Your task to perform on an android device: open the mobile data screen to see how much data has been used Image 0: 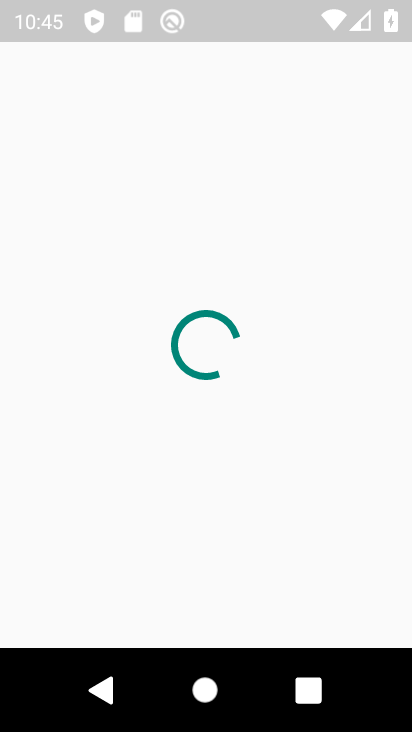
Step 0: drag from (386, 531) to (406, 501)
Your task to perform on an android device: open the mobile data screen to see how much data has been used Image 1: 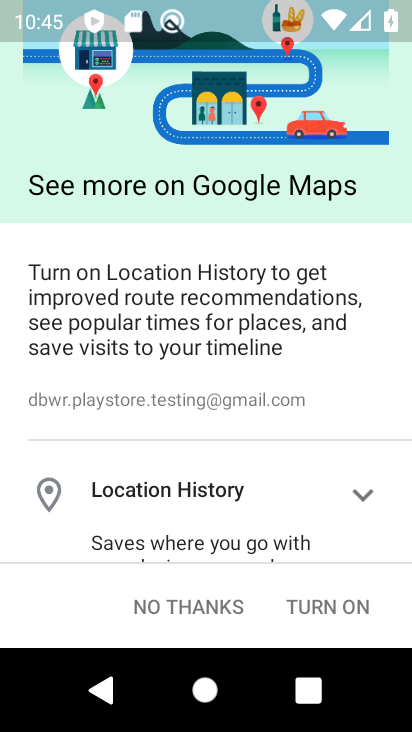
Step 1: press home button
Your task to perform on an android device: open the mobile data screen to see how much data has been used Image 2: 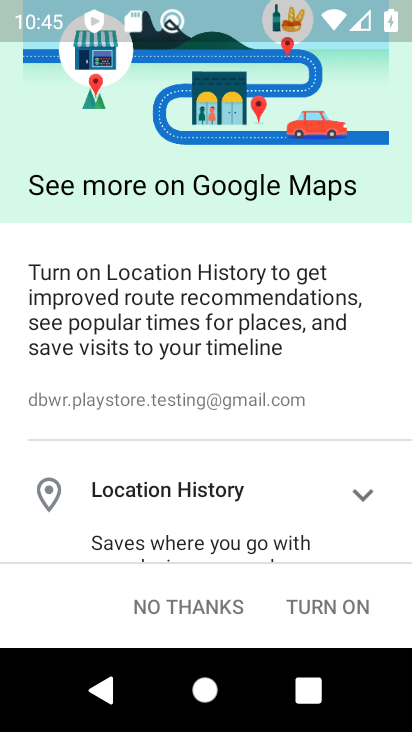
Step 2: click (406, 501)
Your task to perform on an android device: open the mobile data screen to see how much data has been used Image 3: 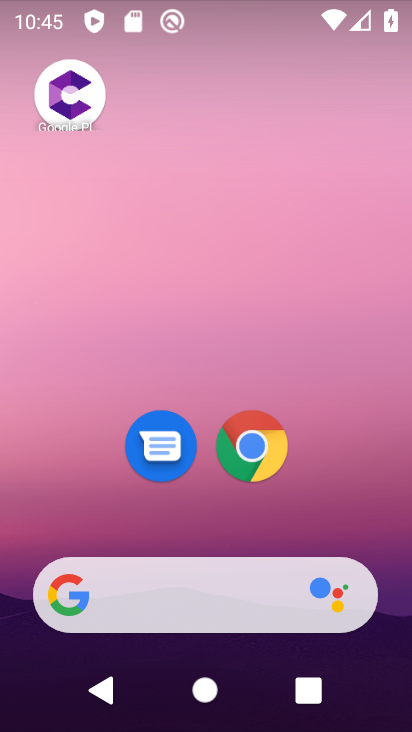
Step 3: drag from (382, 522) to (376, 170)
Your task to perform on an android device: open the mobile data screen to see how much data has been used Image 4: 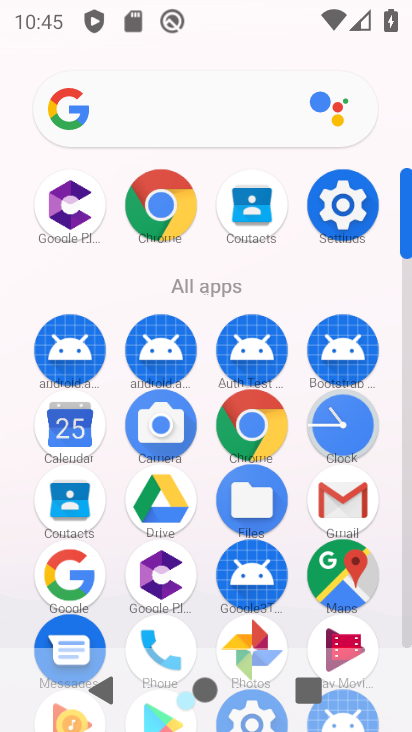
Step 4: click (348, 223)
Your task to perform on an android device: open the mobile data screen to see how much data has been used Image 5: 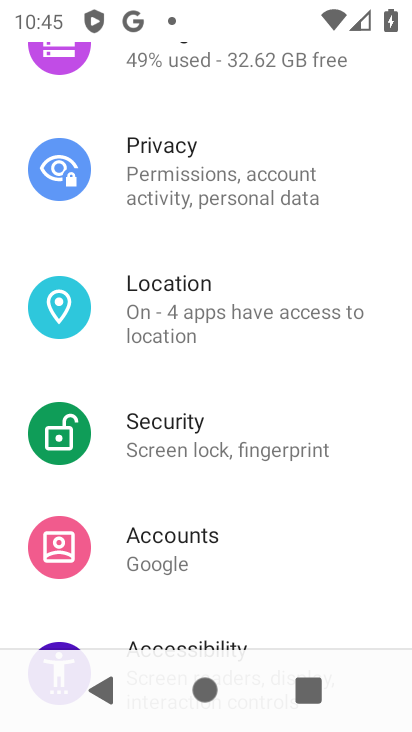
Step 5: drag from (348, 223) to (359, 333)
Your task to perform on an android device: open the mobile data screen to see how much data has been used Image 6: 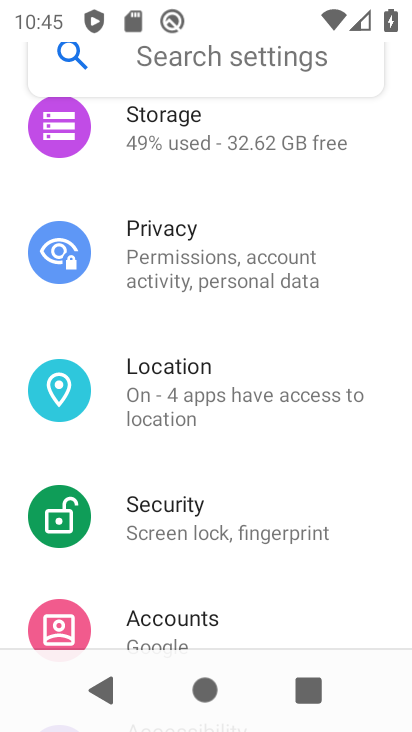
Step 6: drag from (359, 229) to (363, 318)
Your task to perform on an android device: open the mobile data screen to see how much data has been used Image 7: 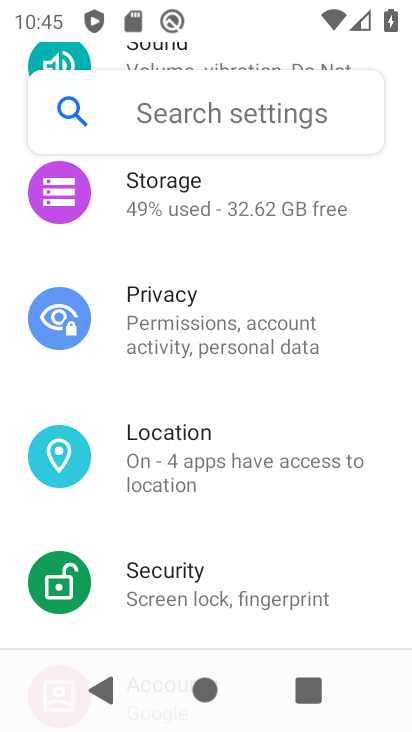
Step 7: drag from (387, 203) to (382, 318)
Your task to perform on an android device: open the mobile data screen to see how much data has been used Image 8: 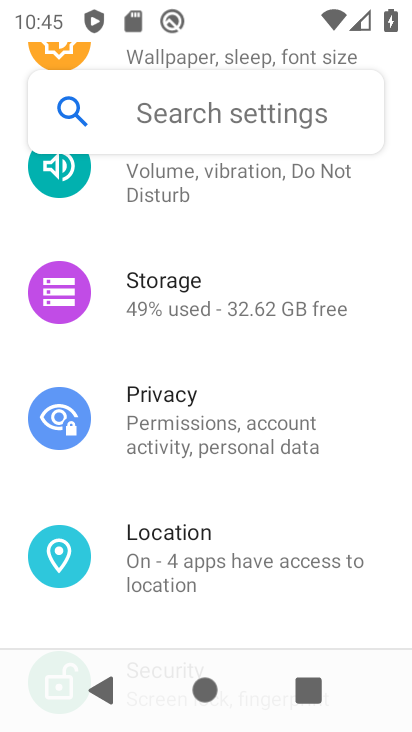
Step 8: drag from (374, 233) to (373, 313)
Your task to perform on an android device: open the mobile data screen to see how much data has been used Image 9: 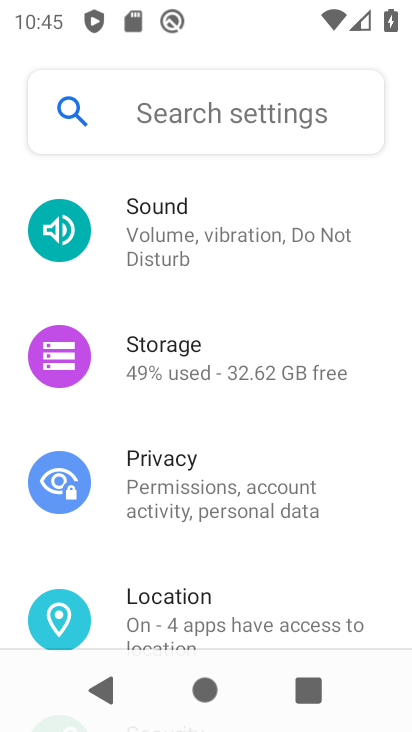
Step 9: drag from (371, 213) to (373, 322)
Your task to perform on an android device: open the mobile data screen to see how much data has been used Image 10: 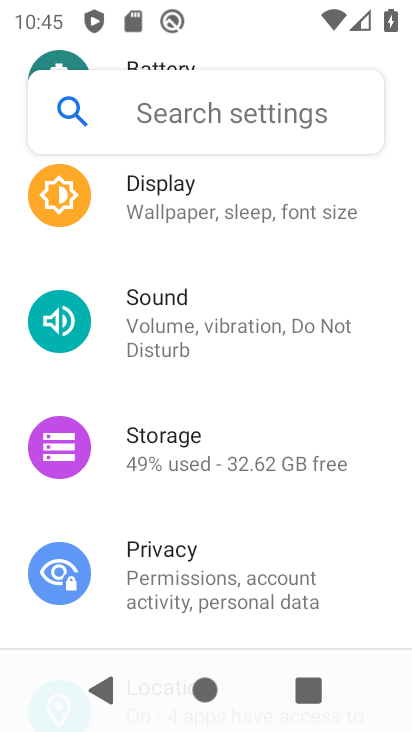
Step 10: drag from (377, 209) to (384, 308)
Your task to perform on an android device: open the mobile data screen to see how much data has been used Image 11: 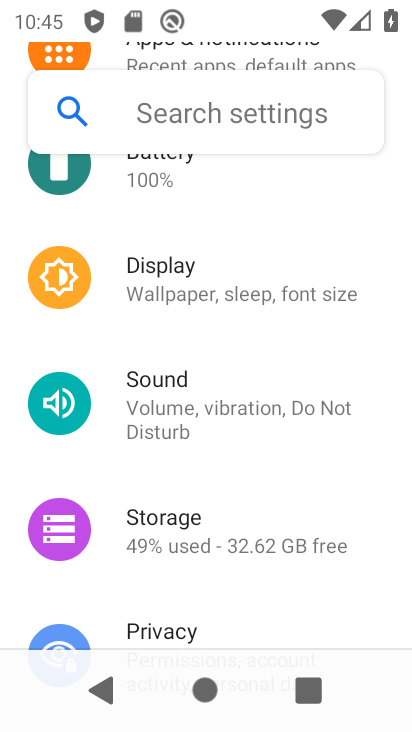
Step 11: drag from (372, 204) to (374, 298)
Your task to perform on an android device: open the mobile data screen to see how much data has been used Image 12: 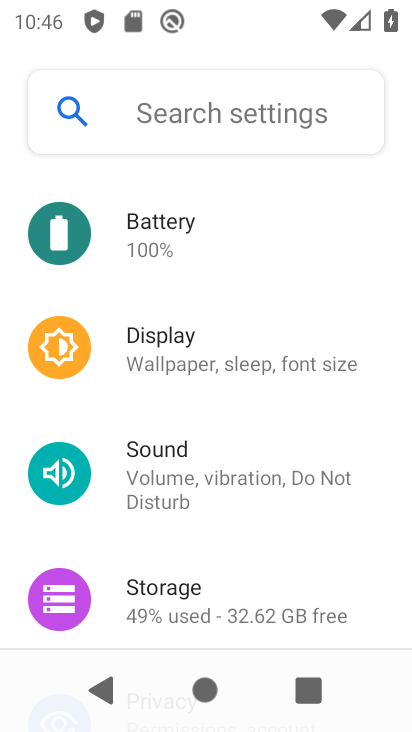
Step 12: drag from (369, 273) to (368, 378)
Your task to perform on an android device: open the mobile data screen to see how much data has been used Image 13: 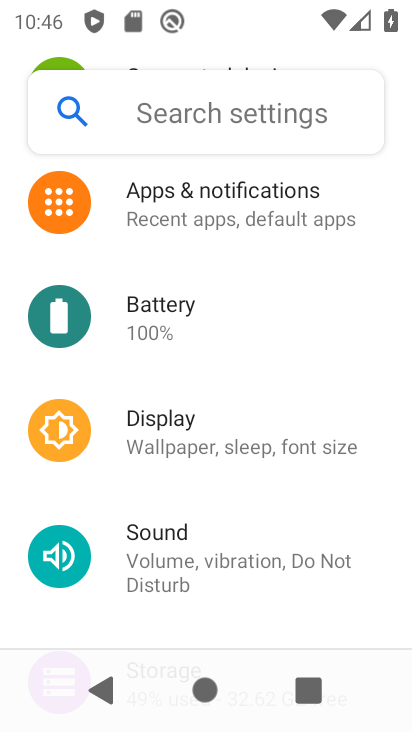
Step 13: drag from (356, 270) to (349, 374)
Your task to perform on an android device: open the mobile data screen to see how much data has been used Image 14: 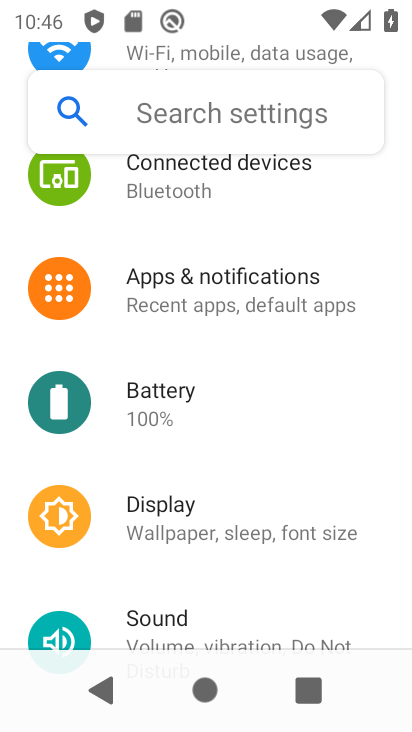
Step 14: drag from (361, 239) to (345, 363)
Your task to perform on an android device: open the mobile data screen to see how much data has been used Image 15: 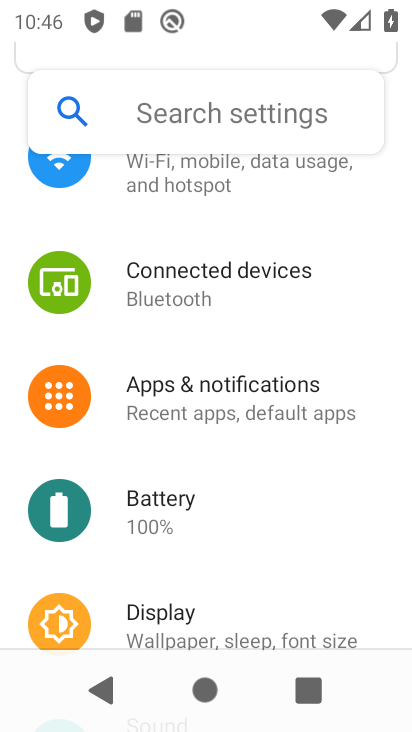
Step 15: drag from (356, 242) to (356, 350)
Your task to perform on an android device: open the mobile data screen to see how much data has been used Image 16: 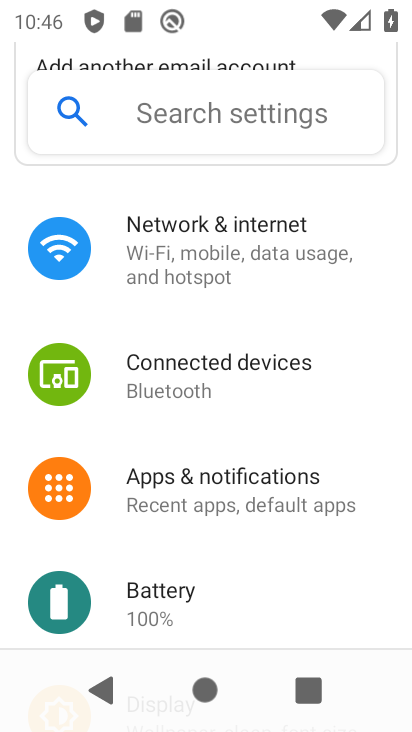
Step 16: drag from (367, 208) to (354, 354)
Your task to perform on an android device: open the mobile data screen to see how much data has been used Image 17: 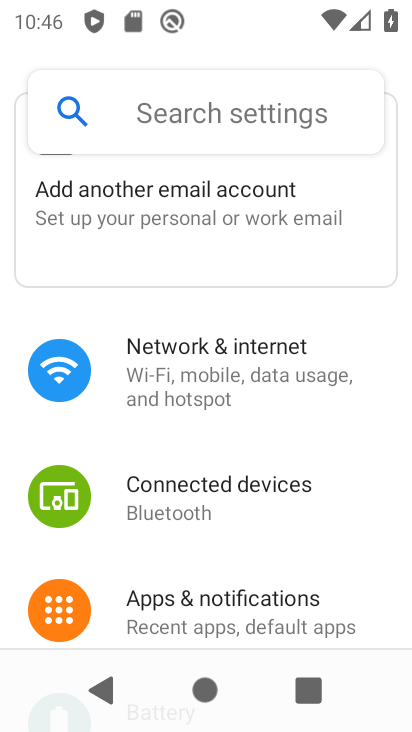
Step 17: click (283, 370)
Your task to perform on an android device: open the mobile data screen to see how much data has been used Image 18: 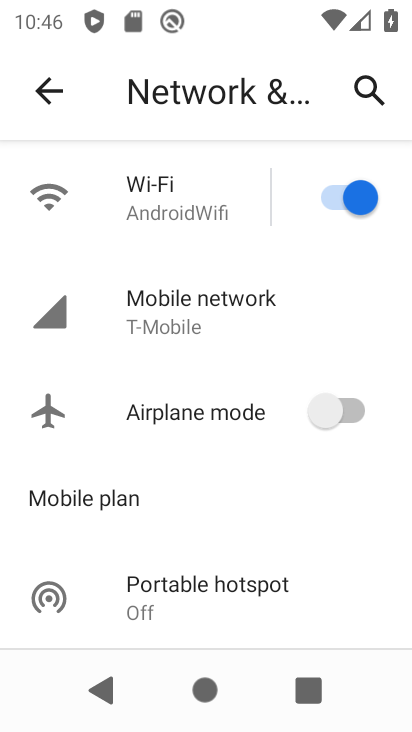
Step 18: click (218, 320)
Your task to perform on an android device: open the mobile data screen to see how much data has been used Image 19: 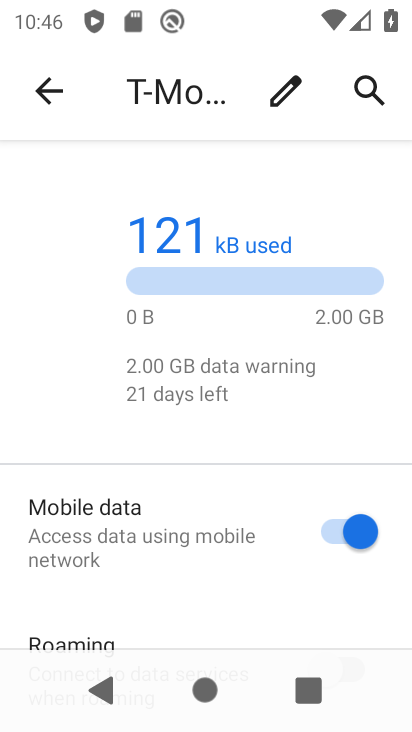
Step 19: drag from (223, 522) to (248, 387)
Your task to perform on an android device: open the mobile data screen to see how much data has been used Image 20: 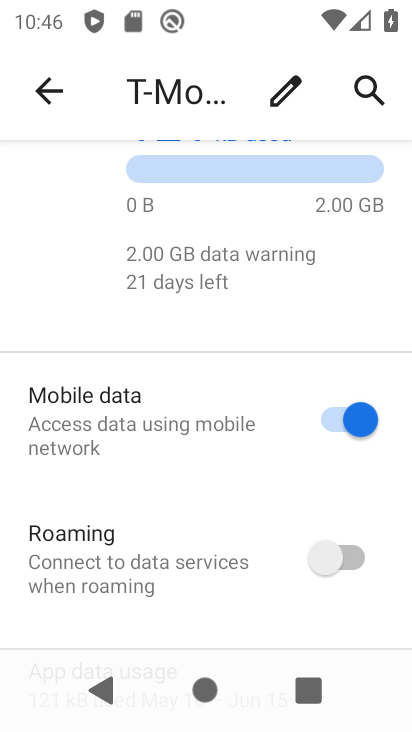
Step 20: drag from (251, 523) to (247, 339)
Your task to perform on an android device: open the mobile data screen to see how much data has been used Image 21: 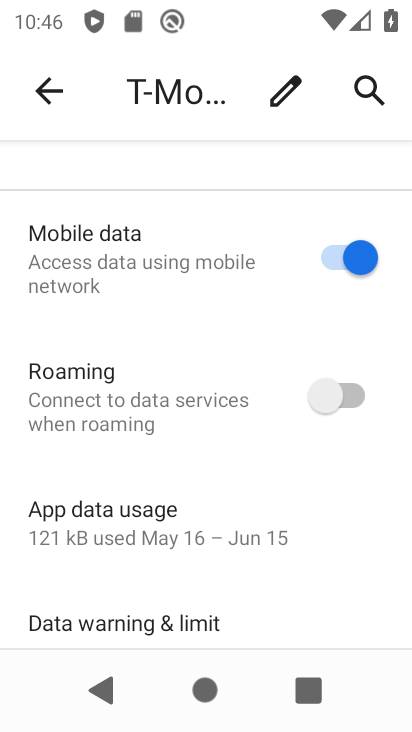
Step 21: click (228, 538)
Your task to perform on an android device: open the mobile data screen to see how much data has been used Image 22: 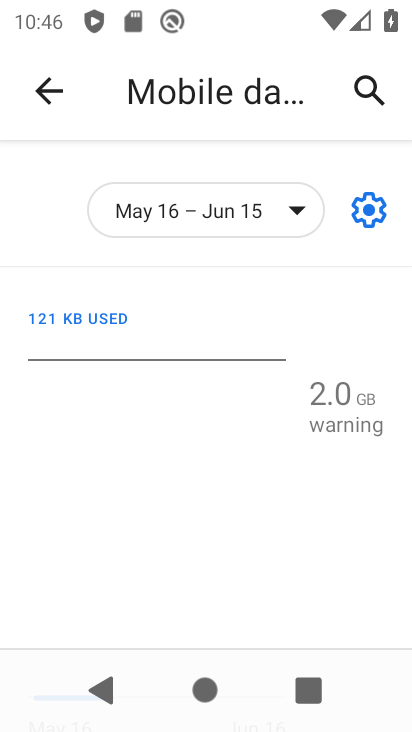
Step 22: task complete